Your task to perform on an android device: Open Android settings Image 0: 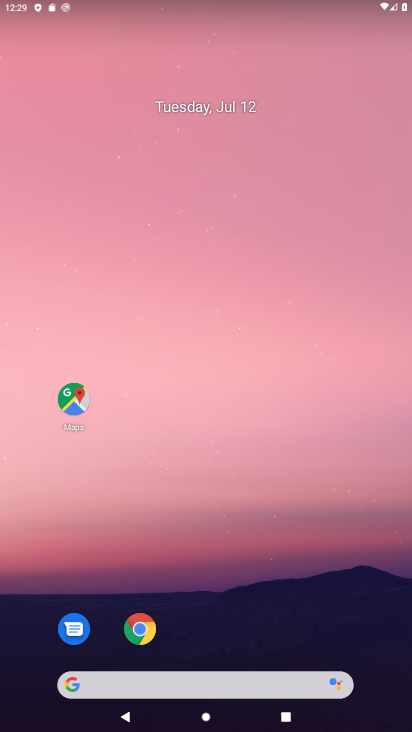
Step 0: drag from (252, 679) to (248, 13)
Your task to perform on an android device: Open Android settings Image 1: 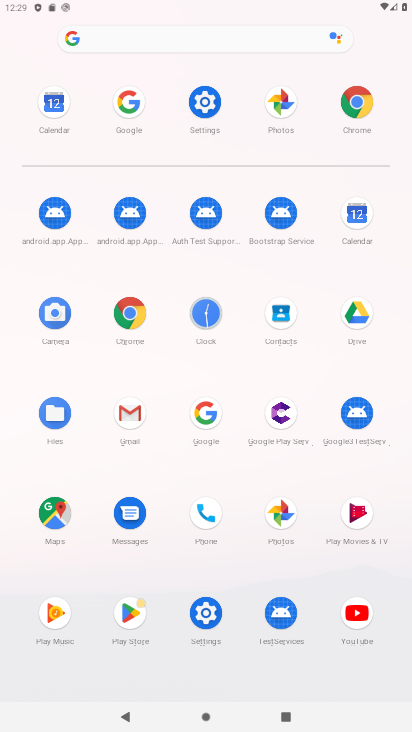
Step 1: click (210, 100)
Your task to perform on an android device: Open Android settings Image 2: 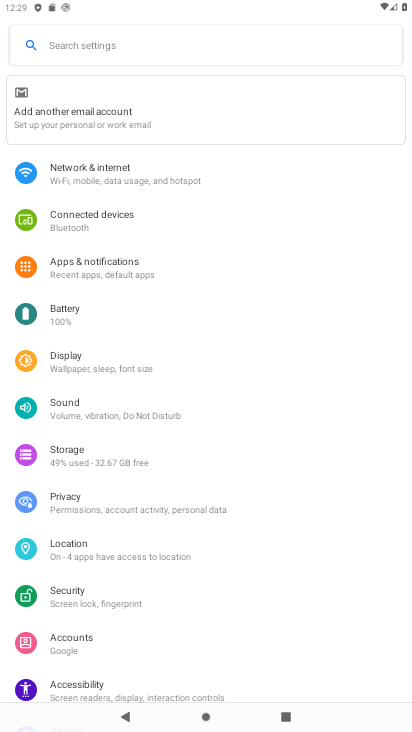
Step 2: drag from (181, 670) to (273, 24)
Your task to perform on an android device: Open Android settings Image 3: 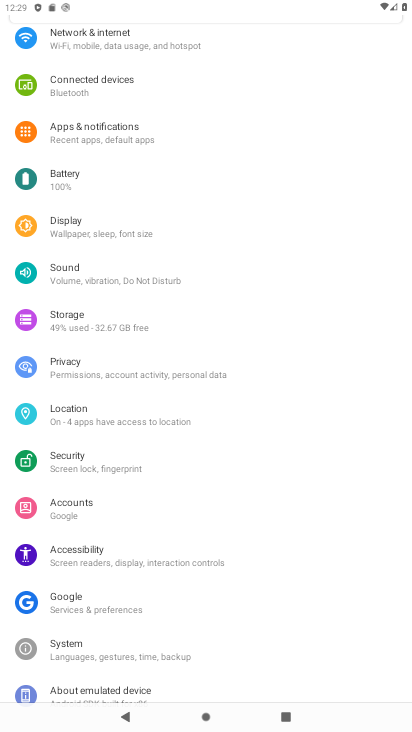
Step 3: click (135, 695)
Your task to perform on an android device: Open Android settings Image 4: 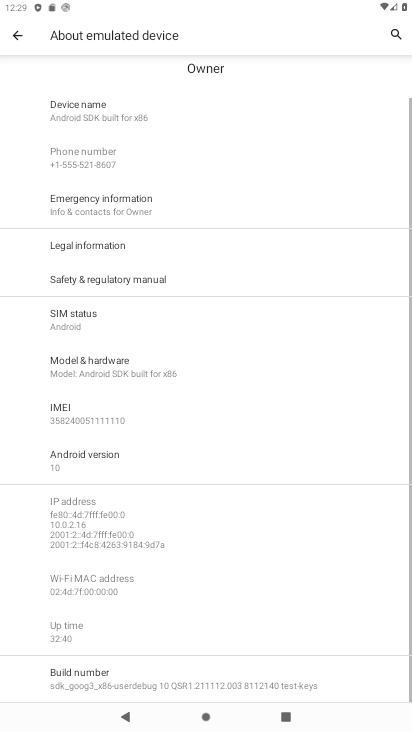
Step 4: click (118, 475)
Your task to perform on an android device: Open Android settings Image 5: 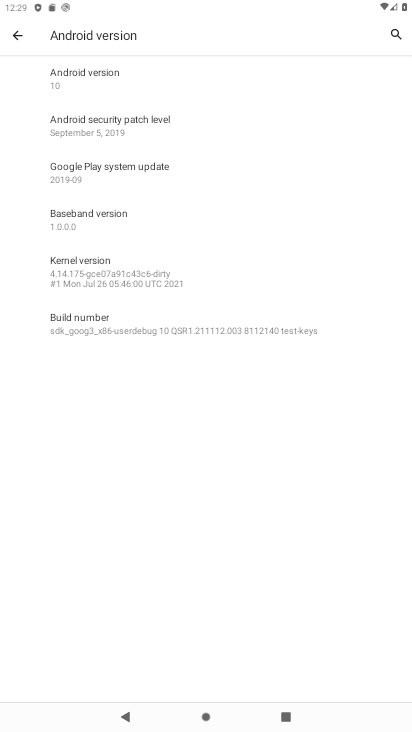
Step 5: task complete